Your task to perform on an android device: check android version Image 0: 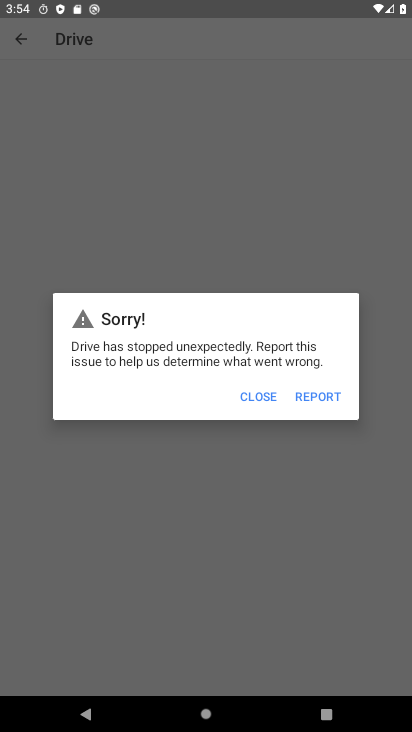
Step 0: press home button
Your task to perform on an android device: check android version Image 1: 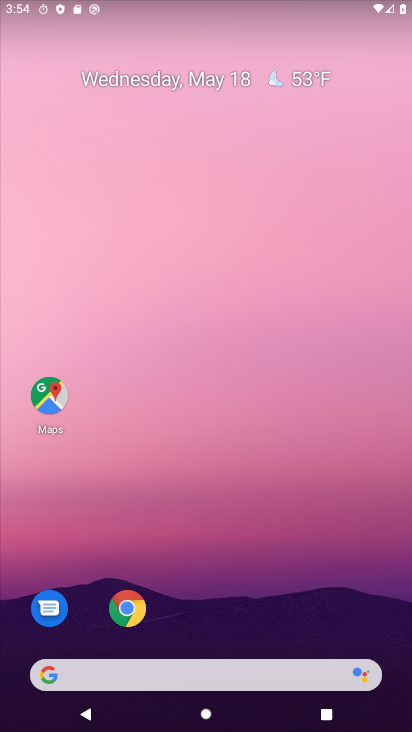
Step 1: drag from (263, 663) to (241, 4)
Your task to perform on an android device: check android version Image 2: 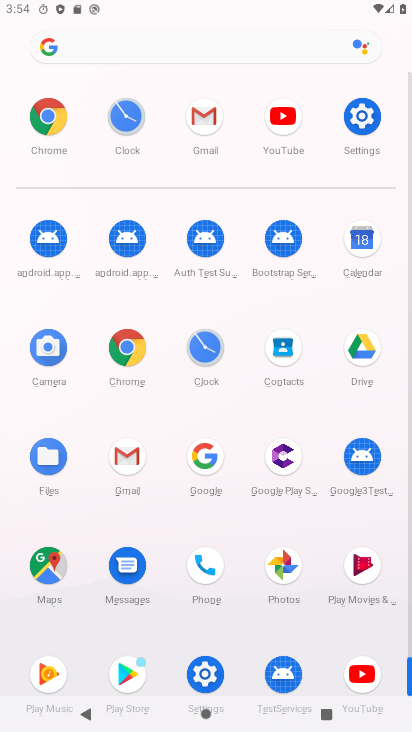
Step 2: click (354, 138)
Your task to perform on an android device: check android version Image 3: 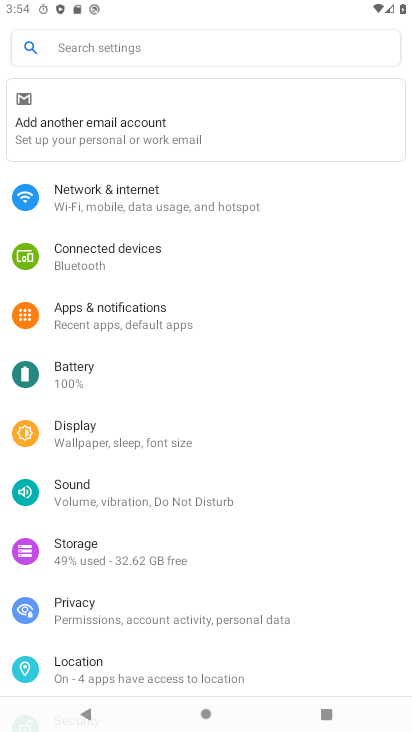
Step 3: drag from (195, 655) to (258, 38)
Your task to perform on an android device: check android version Image 4: 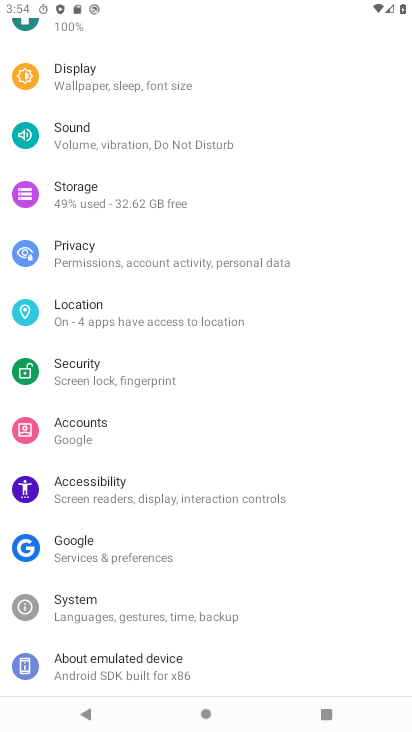
Step 4: click (213, 670)
Your task to perform on an android device: check android version Image 5: 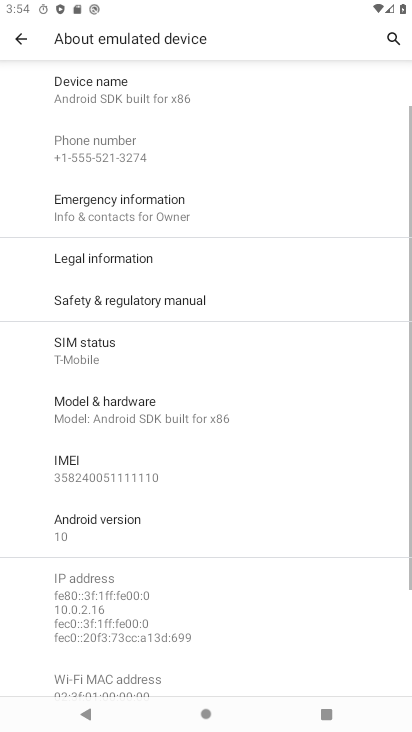
Step 5: drag from (213, 670) to (207, 143)
Your task to perform on an android device: check android version Image 6: 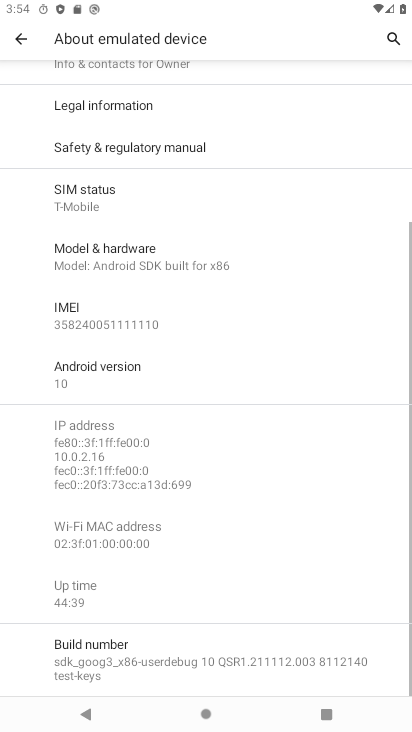
Step 6: drag from (116, 177) to (134, 318)
Your task to perform on an android device: check android version Image 7: 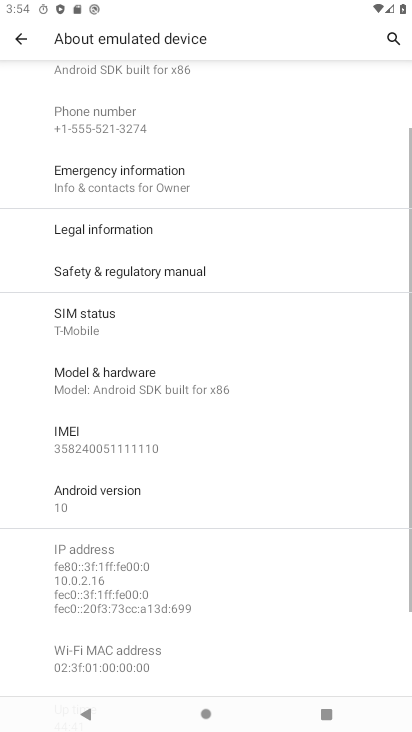
Step 7: click (165, 507)
Your task to perform on an android device: check android version Image 8: 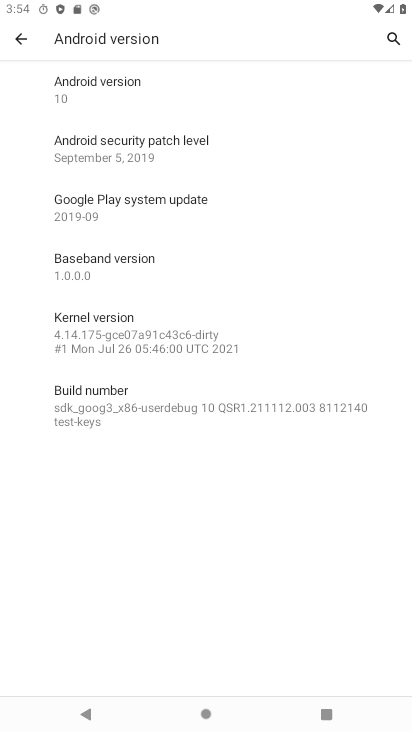
Step 8: task complete